Your task to perform on an android device: Go to notification settings Image 0: 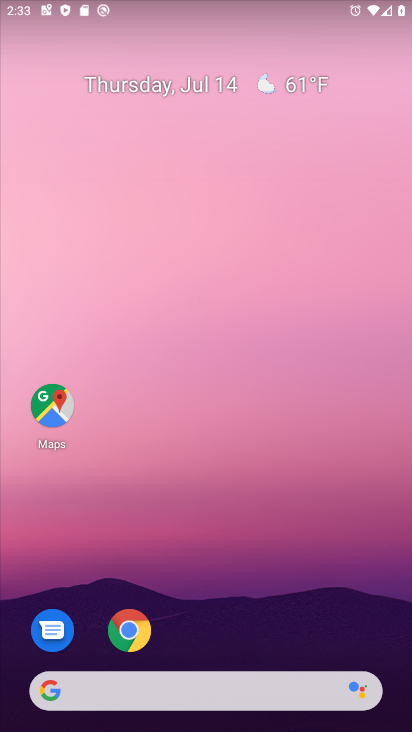
Step 0: drag from (213, 688) to (326, 137)
Your task to perform on an android device: Go to notification settings Image 1: 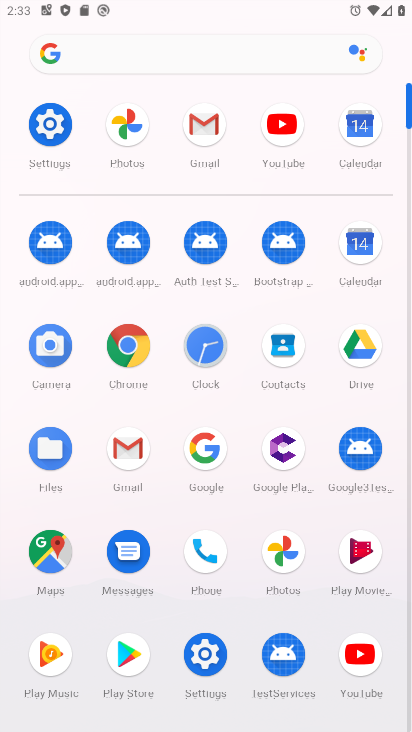
Step 1: click (55, 128)
Your task to perform on an android device: Go to notification settings Image 2: 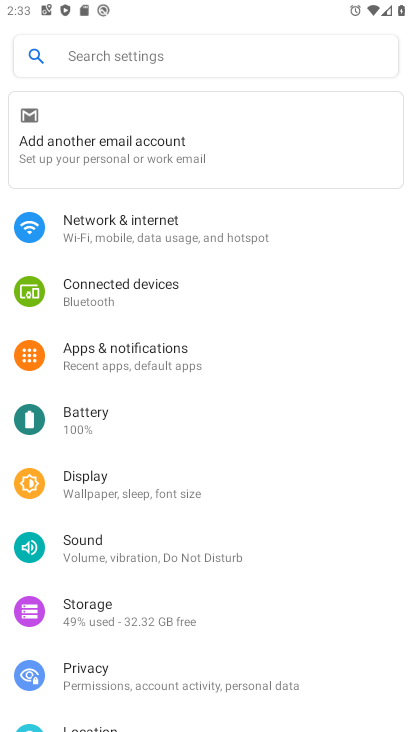
Step 2: click (177, 353)
Your task to perform on an android device: Go to notification settings Image 3: 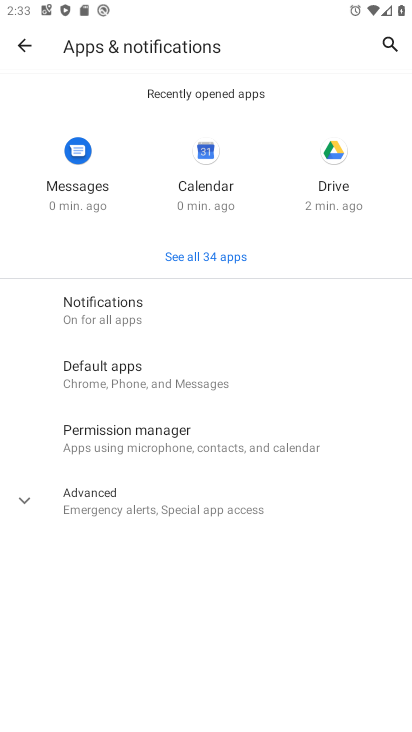
Step 3: click (103, 315)
Your task to perform on an android device: Go to notification settings Image 4: 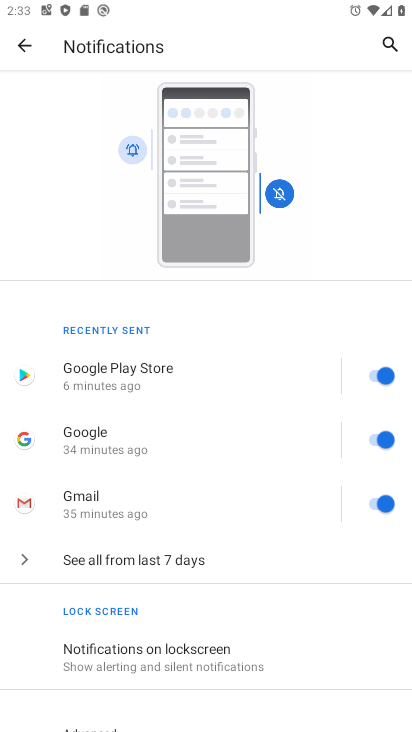
Step 4: task complete